Your task to perform on an android device: Clear the shopping cart on bestbuy.com. Search for "razer blackwidow" on bestbuy.com, select the first entry, and add it to the cart. Image 0: 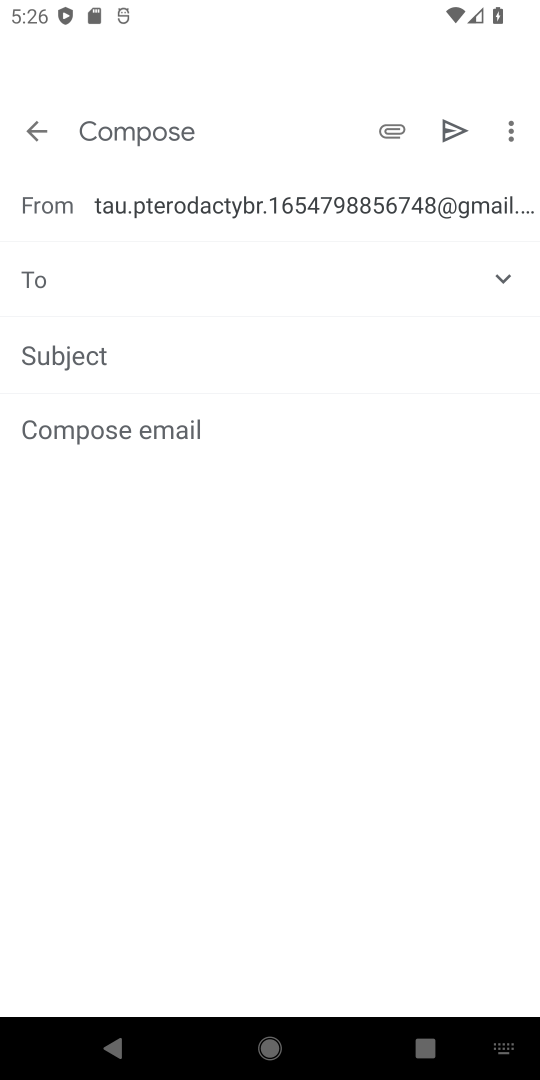
Step 0: press home button
Your task to perform on an android device: Clear the shopping cart on bestbuy.com. Search for "razer blackwidow" on bestbuy.com, select the first entry, and add it to the cart. Image 1: 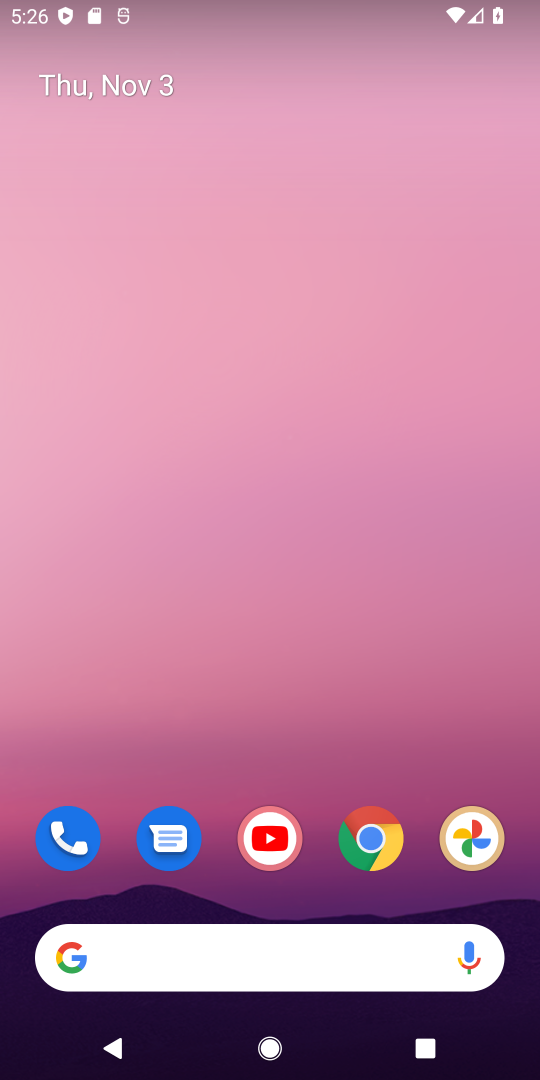
Step 1: click (378, 852)
Your task to perform on an android device: Clear the shopping cart on bestbuy.com. Search for "razer blackwidow" on bestbuy.com, select the first entry, and add it to the cart. Image 2: 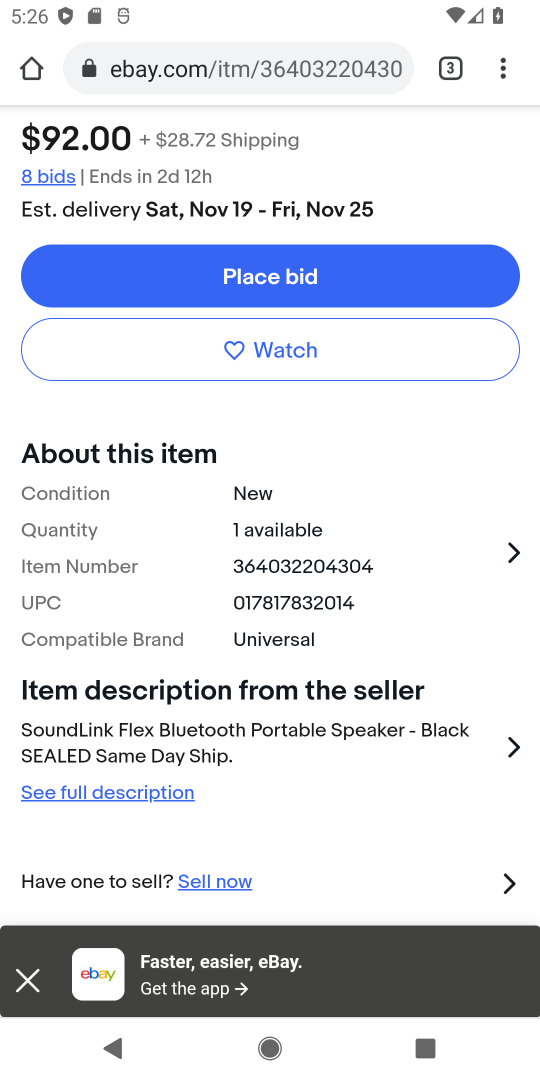
Step 2: click (451, 74)
Your task to perform on an android device: Clear the shopping cart on bestbuy.com. Search for "razer blackwidow" on bestbuy.com, select the first entry, and add it to the cart. Image 3: 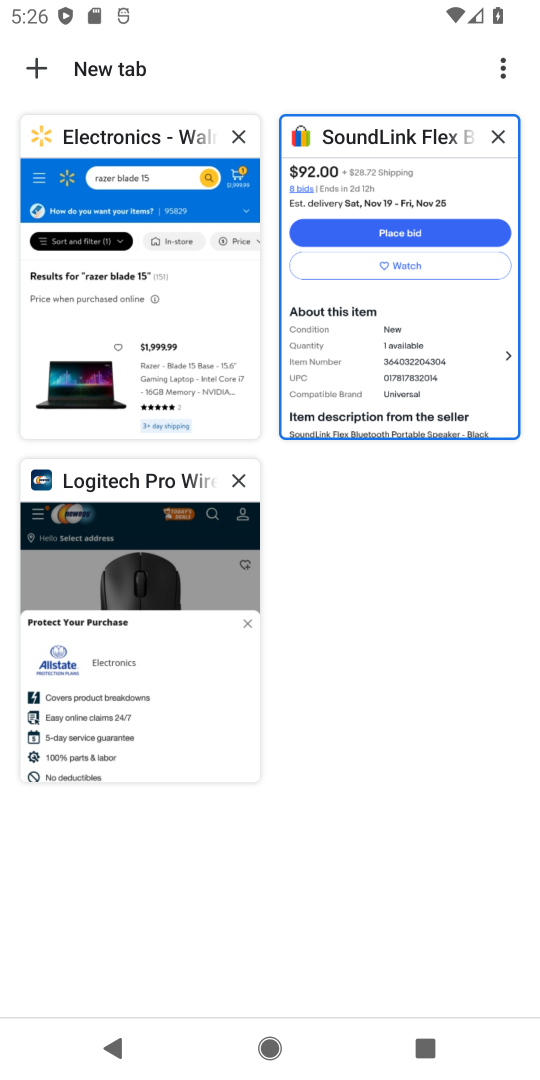
Step 3: click (44, 62)
Your task to perform on an android device: Clear the shopping cart on bestbuy.com. Search for "razer blackwidow" on bestbuy.com, select the first entry, and add it to the cart. Image 4: 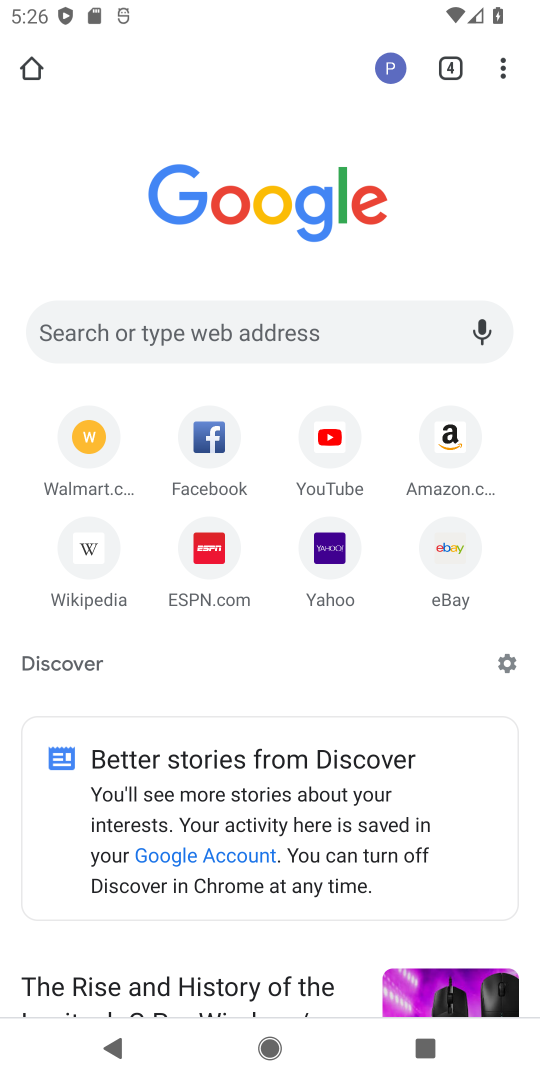
Step 4: click (202, 317)
Your task to perform on an android device: Clear the shopping cart on bestbuy.com. Search for "razer blackwidow" on bestbuy.com, select the first entry, and add it to the cart. Image 5: 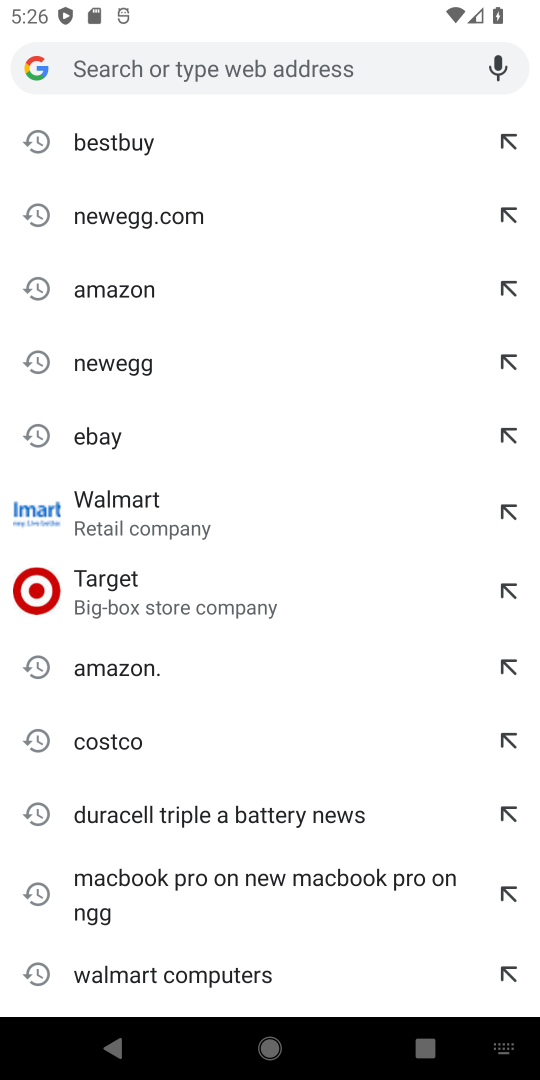
Step 5: type "bestbuy"
Your task to perform on an android device: Clear the shopping cart on bestbuy.com. Search for "razer blackwidow" on bestbuy.com, select the first entry, and add it to the cart. Image 6: 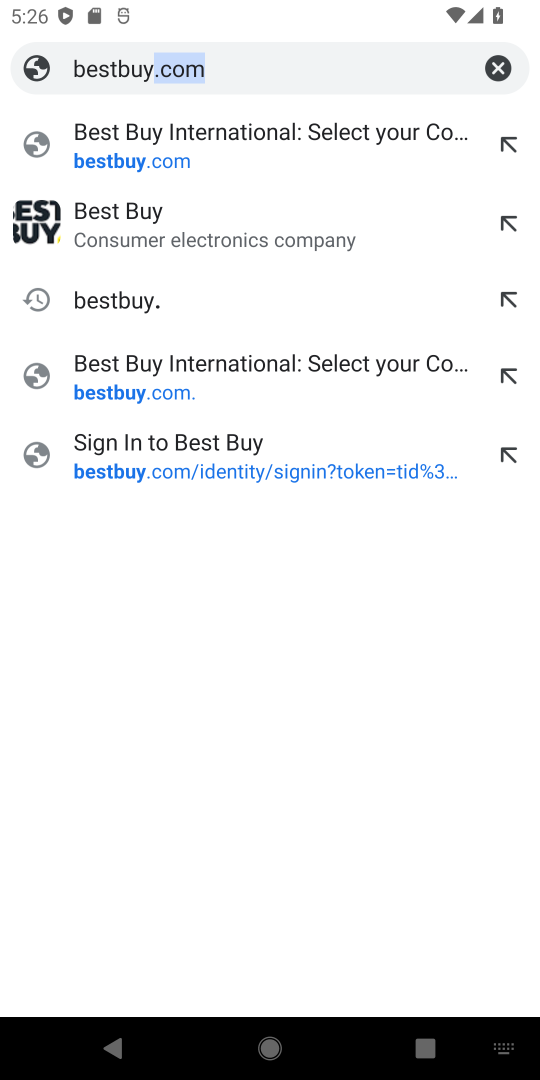
Step 6: click (147, 126)
Your task to perform on an android device: Clear the shopping cart on bestbuy.com. Search for "razer blackwidow" on bestbuy.com, select the first entry, and add it to the cart. Image 7: 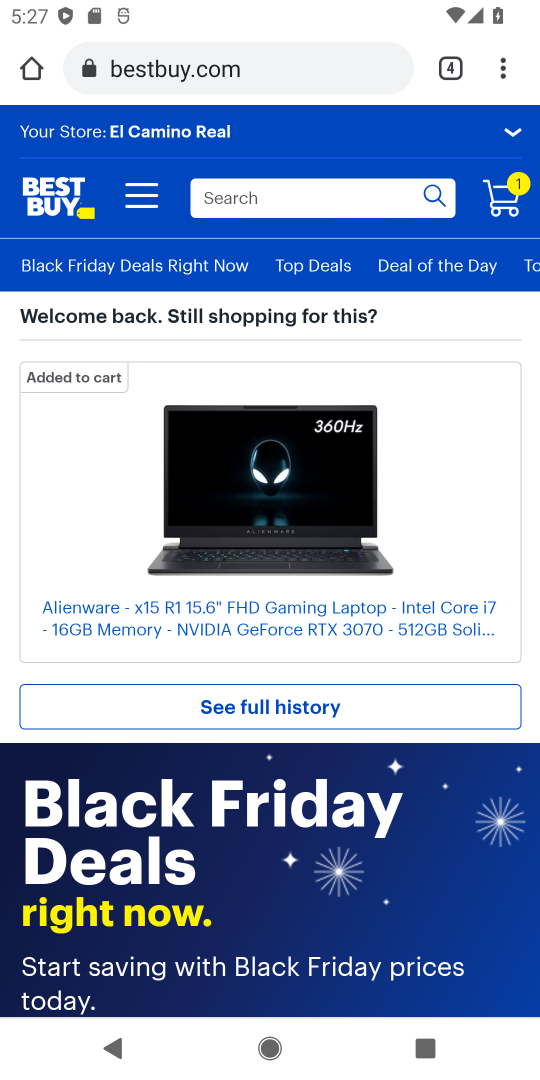
Step 7: click (232, 200)
Your task to perform on an android device: Clear the shopping cart on bestbuy.com. Search for "razer blackwidow" on bestbuy.com, select the first entry, and add it to the cart. Image 8: 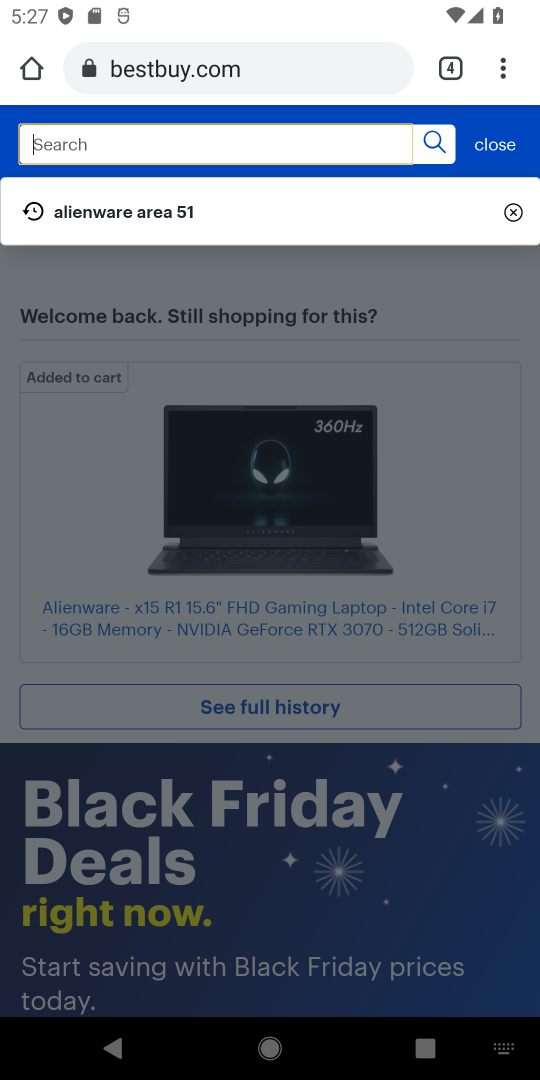
Step 8: type "razer blackwidow"
Your task to perform on an android device: Clear the shopping cart on bestbuy.com. Search for "razer blackwidow" on bestbuy.com, select the first entry, and add it to the cart. Image 9: 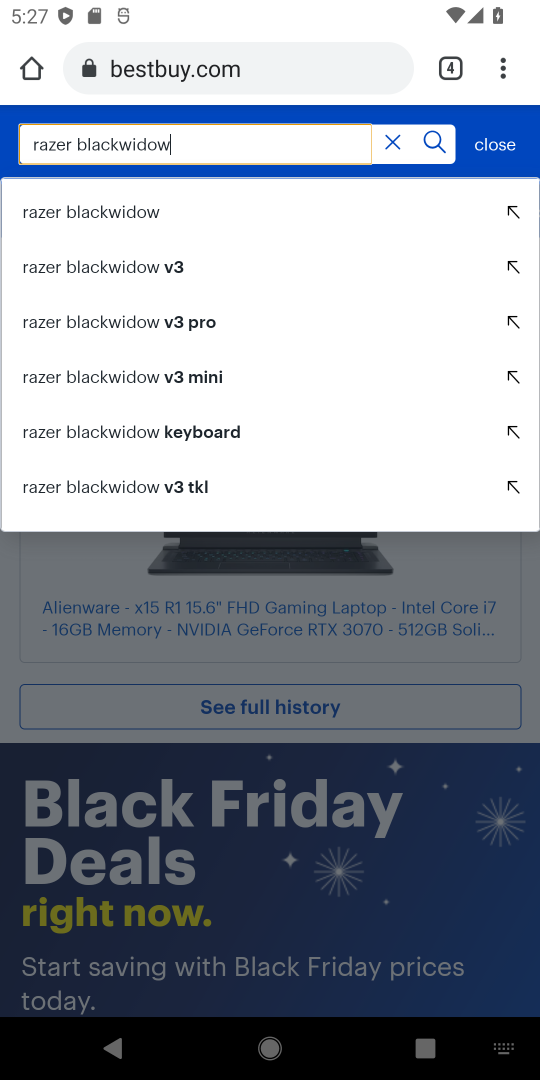
Step 9: click (76, 220)
Your task to perform on an android device: Clear the shopping cart on bestbuy.com. Search for "razer blackwidow" on bestbuy.com, select the first entry, and add it to the cart. Image 10: 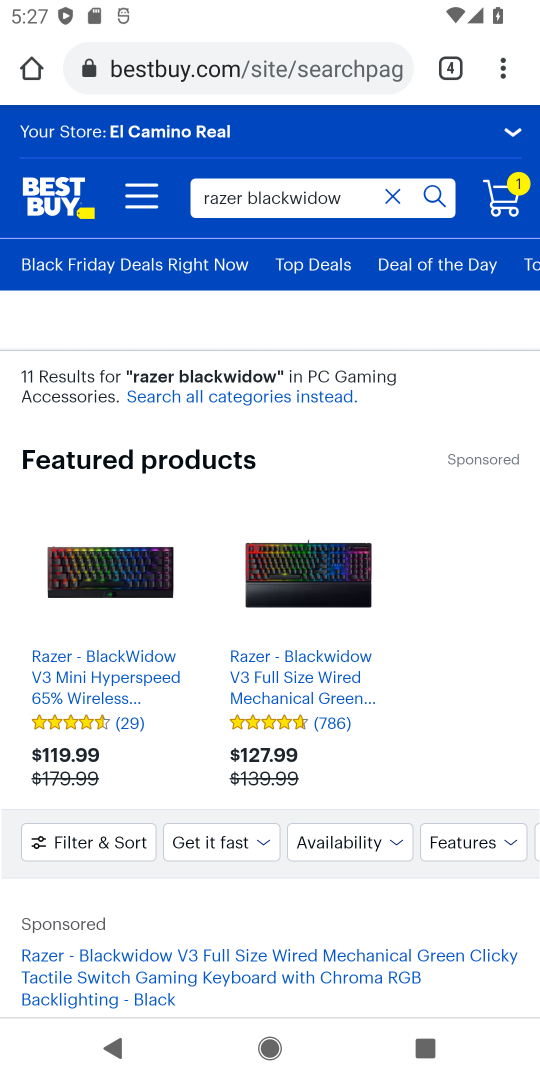
Step 10: click (142, 677)
Your task to perform on an android device: Clear the shopping cart on bestbuy.com. Search for "razer blackwidow" on bestbuy.com, select the first entry, and add it to the cart. Image 11: 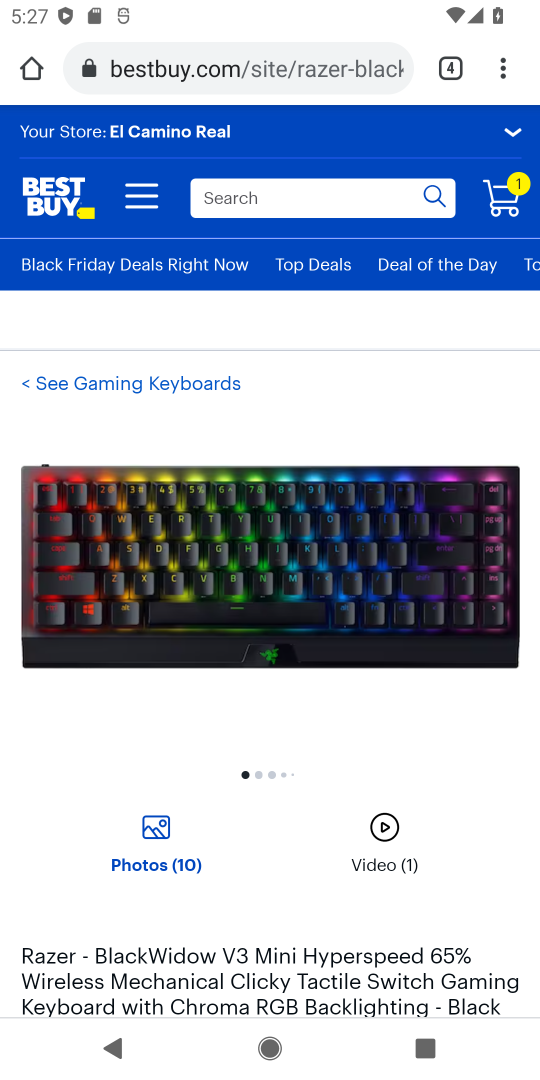
Step 11: drag from (273, 870) to (377, 370)
Your task to perform on an android device: Clear the shopping cart on bestbuy.com. Search for "razer blackwidow" on bestbuy.com, select the first entry, and add it to the cart. Image 12: 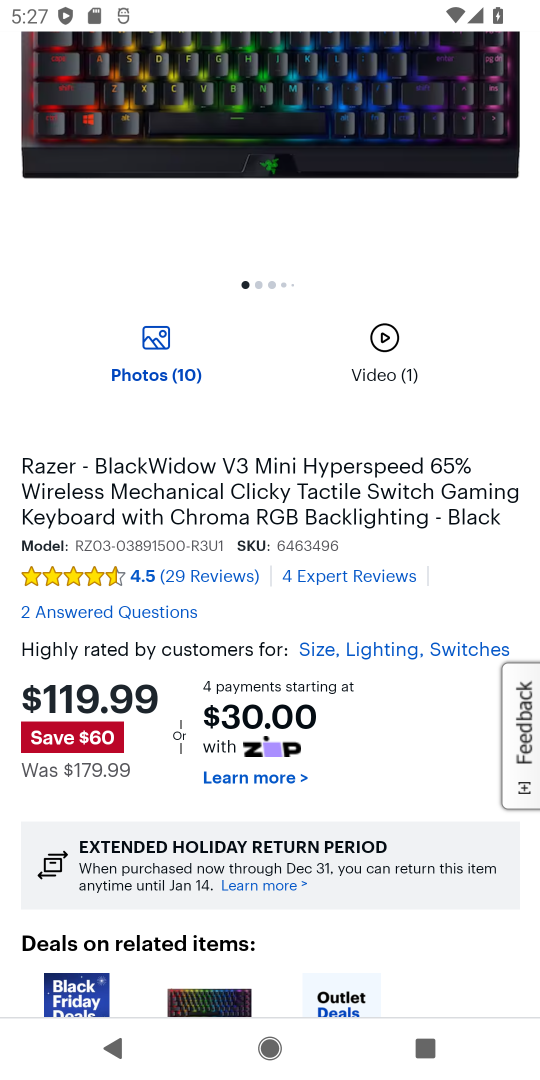
Step 12: drag from (343, 766) to (388, 382)
Your task to perform on an android device: Clear the shopping cart on bestbuy.com. Search for "razer blackwidow" on bestbuy.com, select the first entry, and add it to the cart. Image 13: 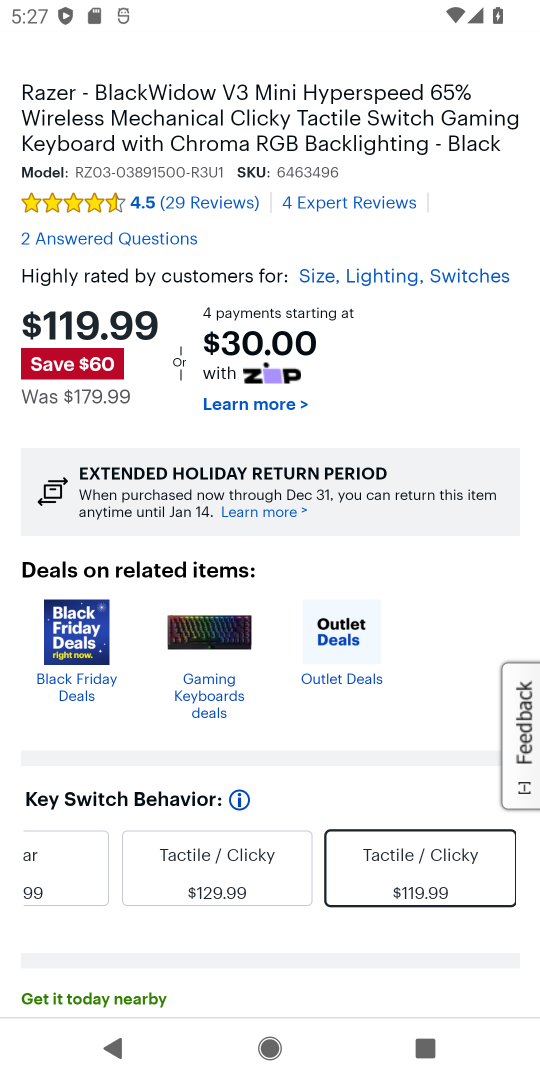
Step 13: drag from (303, 741) to (446, 299)
Your task to perform on an android device: Clear the shopping cart on bestbuy.com. Search for "razer blackwidow" on bestbuy.com, select the first entry, and add it to the cart. Image 14: 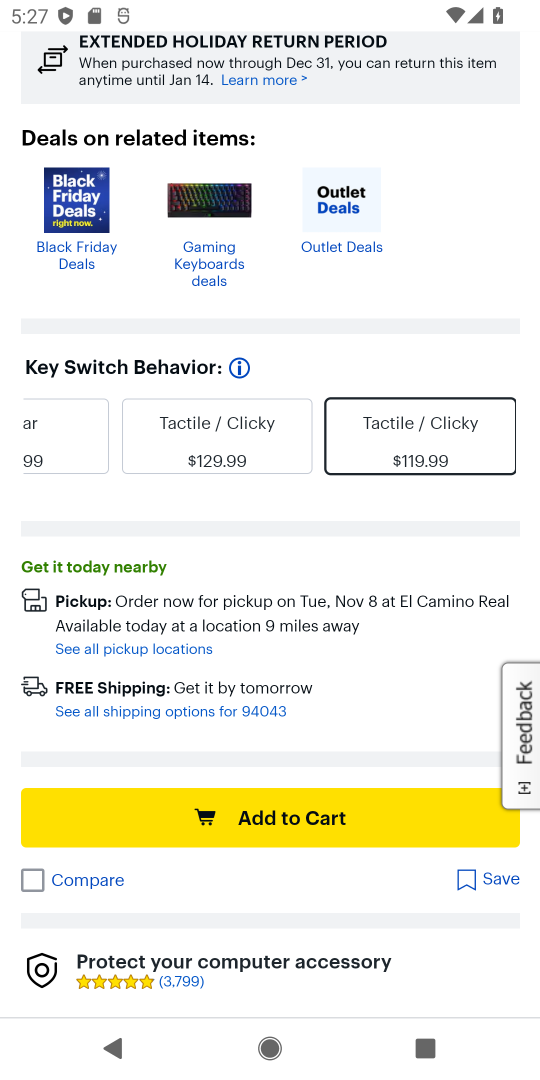
Step 14: click (283, 808)
Your task to perform on an android device: Clear the shopping cart on bestbuy.com. Search for "razer blackwidow" on bestbuy.com, select the first entry, and add it to the cart. Image 15: 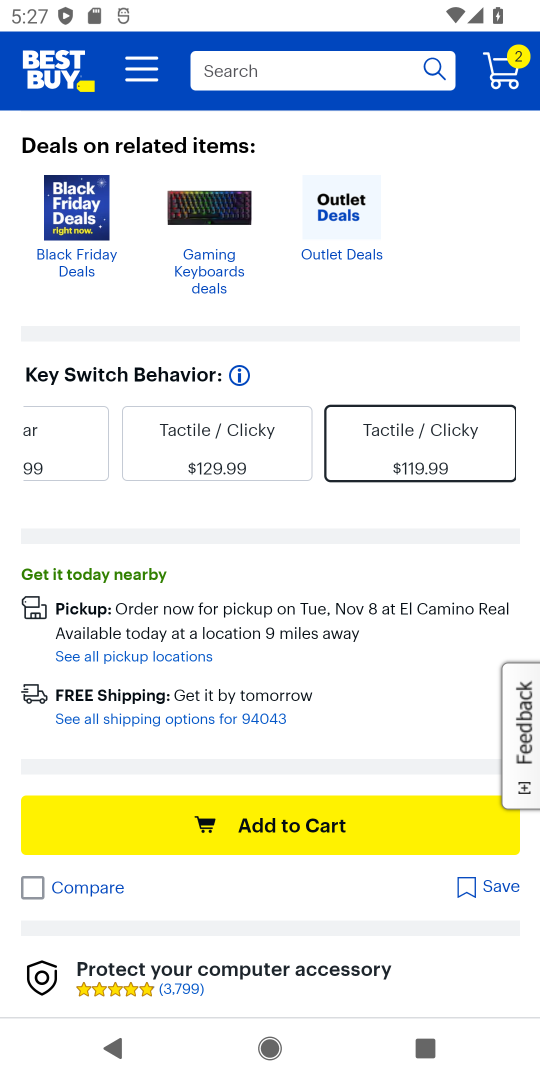
Step 15: task complete